Your task to perform on an android device: toggle location history Image 0: 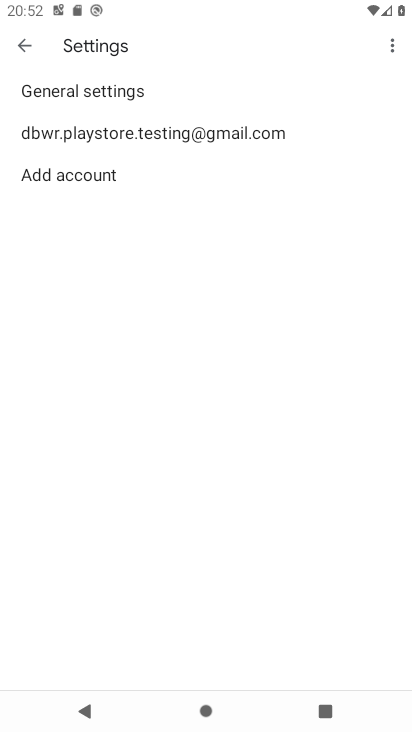
Step 0: press home button
Your task to perform on an android device: toggle location history Image 1: 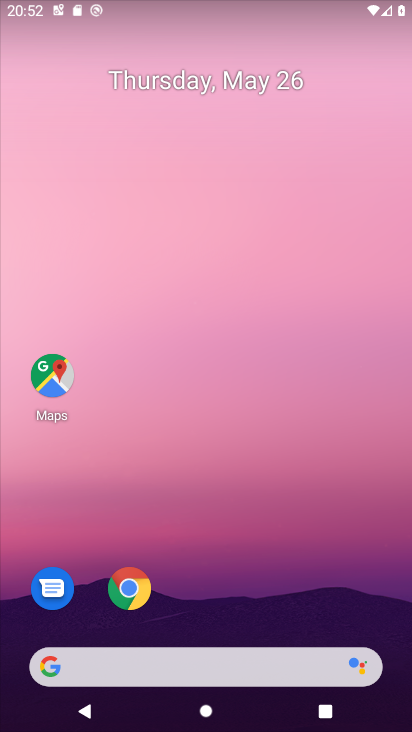
Step 1: drag from (249, 567) to (270, 8)
Your task to perform on an android device: toggle location history Image 2: 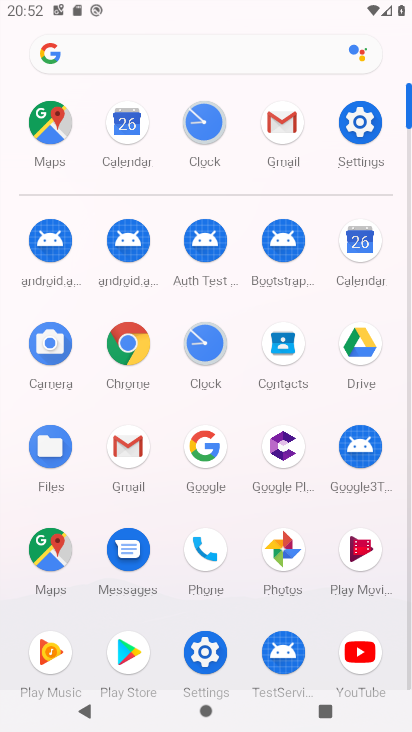
Step 2: click (359, 128)
Your task to perform on an android device: toggle location history Image 3: 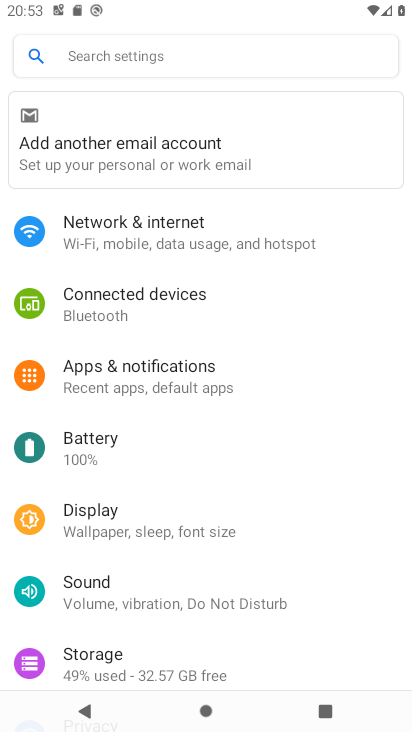
Step 3: drag from (131, 625) to (169, 113)
Your task to perform on an android device: toggle location history Image 4: 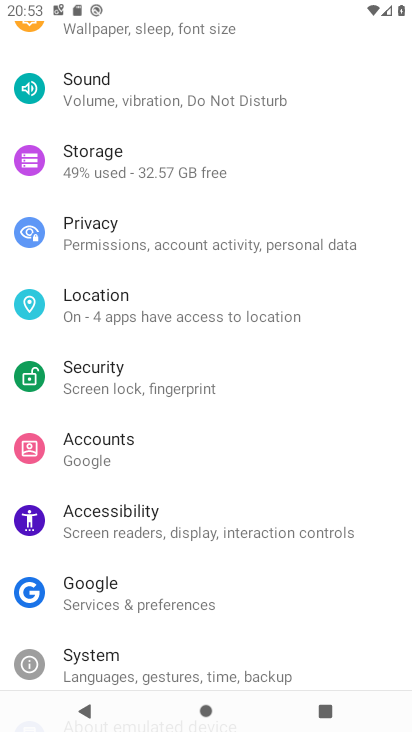
Step 4: click (116, 288)
Your task to perform on an android device: toggle location history Image 5: 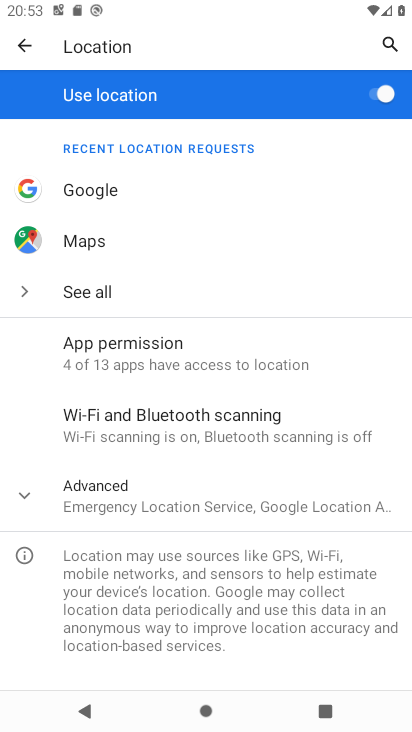
Step 5: click (115, 482)
Your task to perform on an android device: toggle location history Image 6: 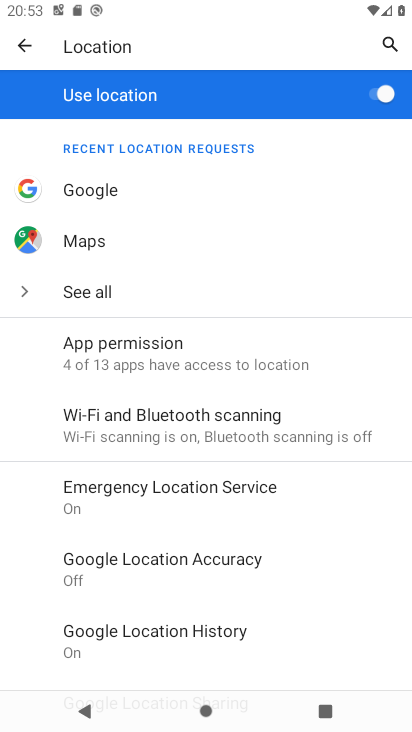
Step 6: click (203, 625)
Your task to perform on an android device: toggle location history Image 7: 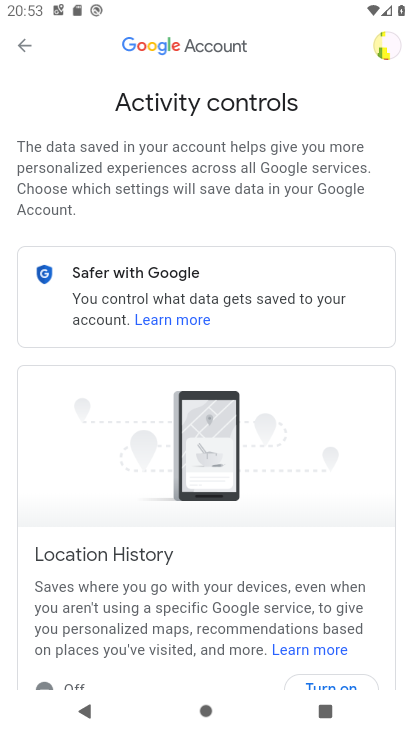
Step 7: drag from (234, 600) to (270, 175)
Your task to perform on an android device: toggle location history Image 8: 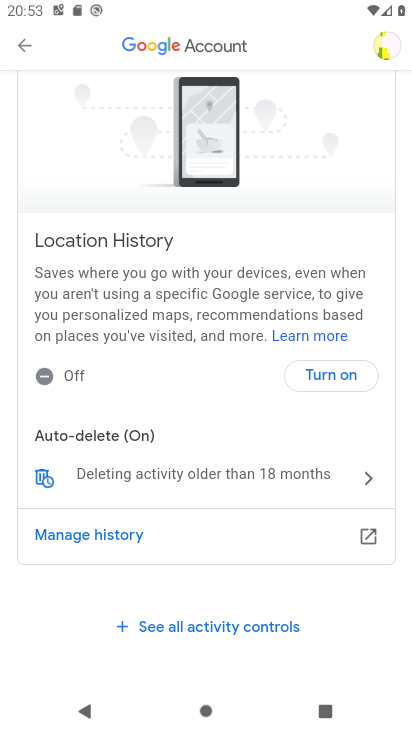
Step 8: click (331, 370)
Your task to perform on an android device: toggle location history Image 9: 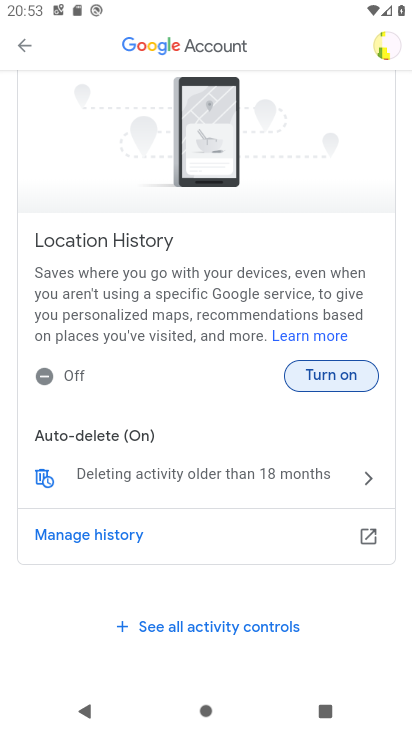
Step 9: click (326, 375)
Your task to perform on an android device: toggle location history Image 10: 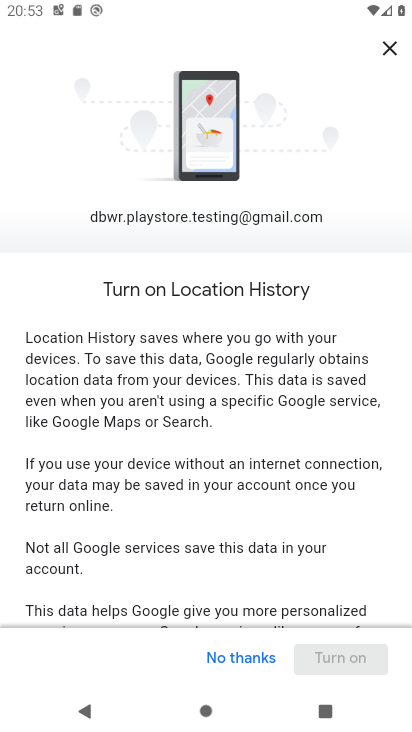
Step 10: drag from (283, 482) to (279, 0)
Your task to perform on an android device: toggle location history Image 11: 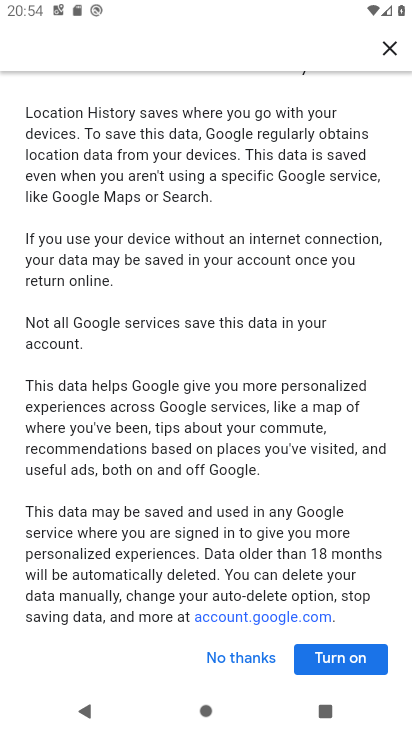
Step 11: click (329, 658)
Your task to perform on an android device: toggle location history Image 12: 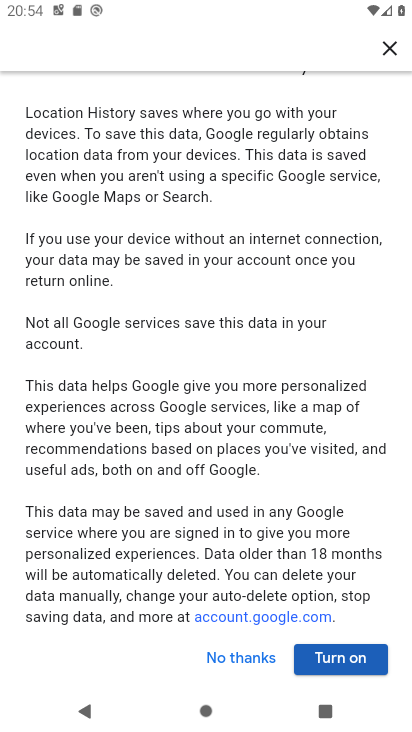
Step 12: click (336, 657)
Your task to perform on an android device: toggle location history Image 13: 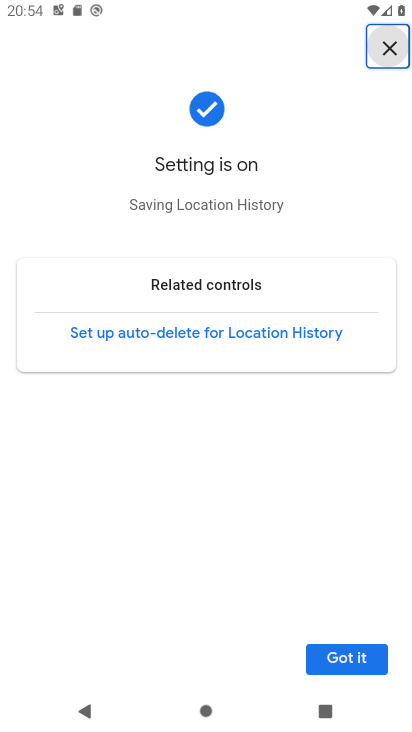
Step 13: task complete